Your task to perform on an android device: Open calendar and show me the fourth week of next month Image 0: 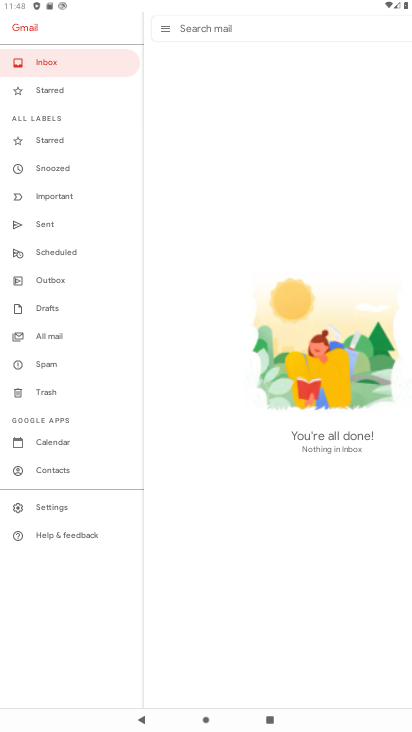
Step 0: press home button
Your task to perform on an android device: Open calendar and show me the fourth week of next month Image 1: 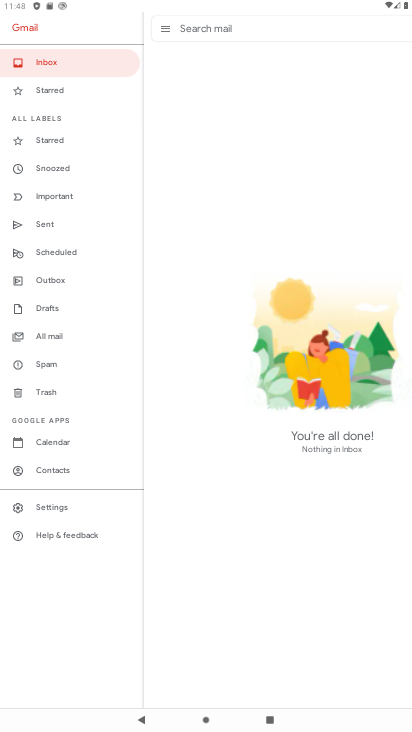
Step 1: press home button
Your task to perform on an android device: Open calendar and show me the fourth week of next month Image 2: 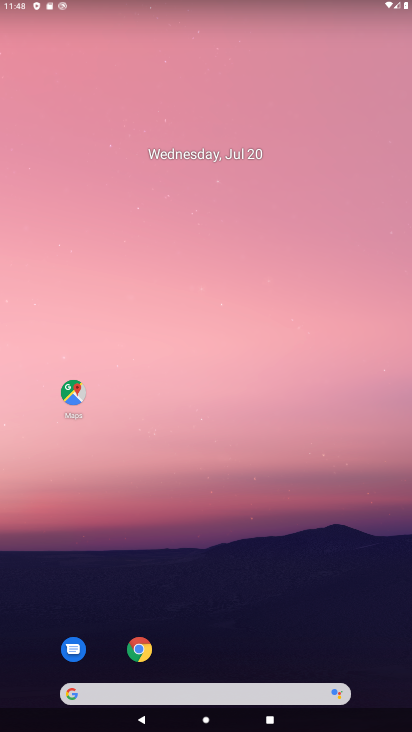
Step 2: drag from (236, 609) to (247, 21)
Your task to perform on an android device: Open calendar and show me the fourth week of next month Image 3: 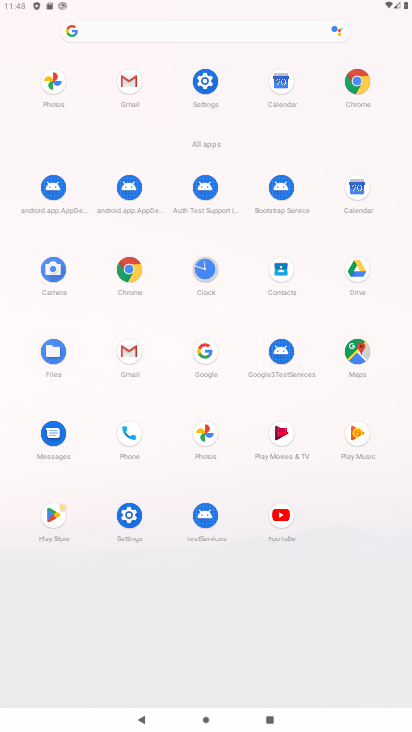
Step 3: click (365, 193)
Your task to perform on an android device: Open calendar and show me the fourth week of next month Image 4: 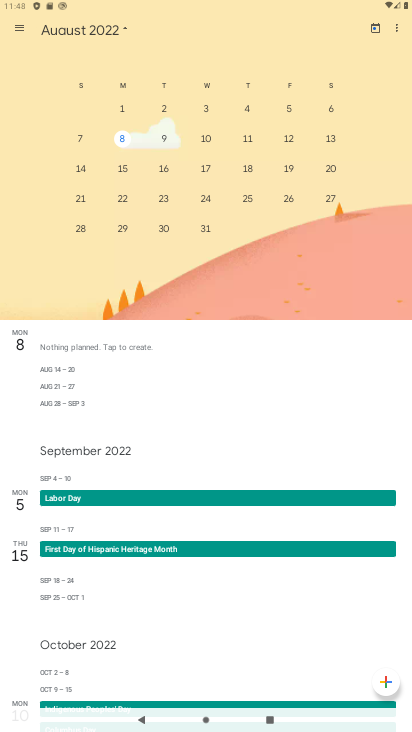
Step 4: click (115, 195)
Your task to perform on an android device: Open calendar and show me the fourth week of next month Image 5: 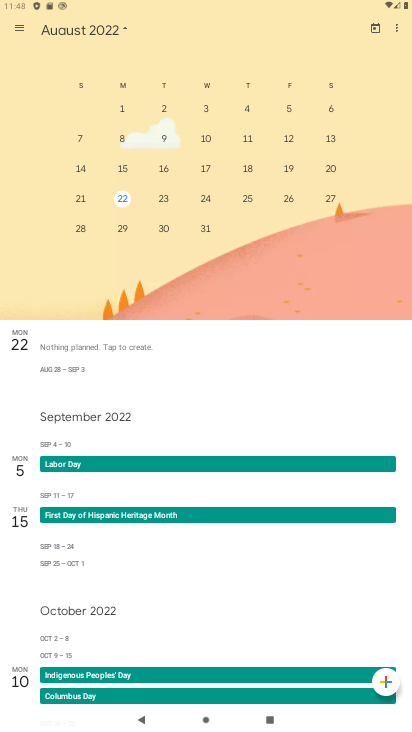
Step 5: task complete